Your task to perform on an android device: all mails in gmail Image 0: 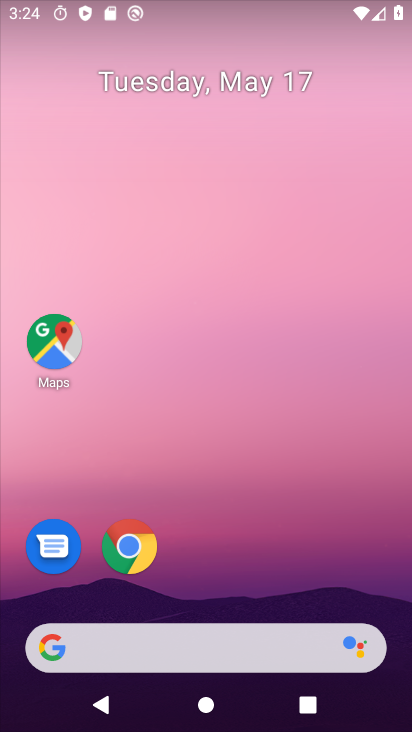
Step 0: drag from (294, 613) to (289, 247)
Your task to perform on an android device: all mails in gmail Image 1: 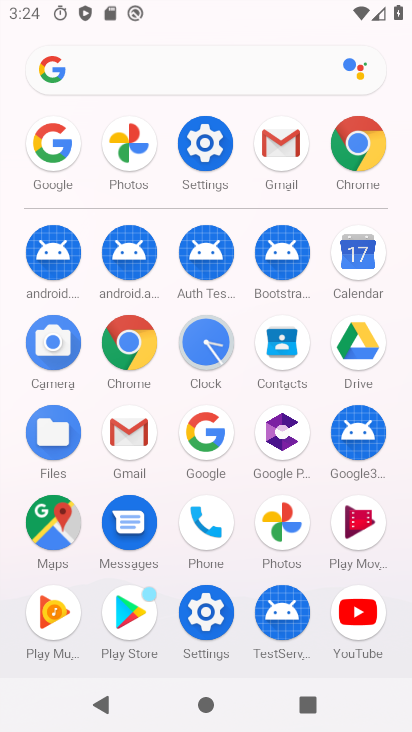
Step 1: click (116, 444)
Your task to perform on an android device: all mails in gmail Image 2: 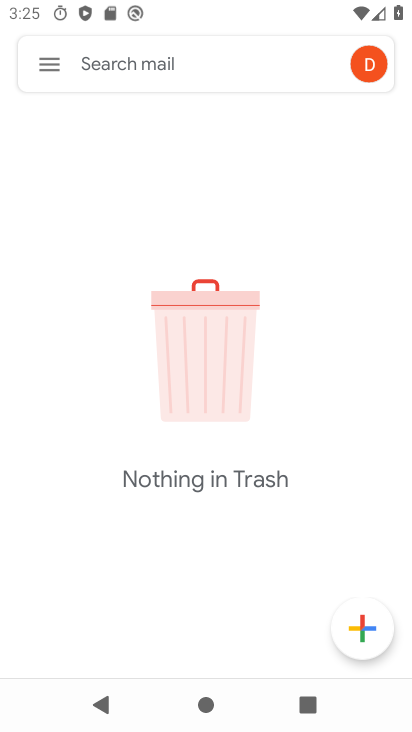
Step 2: click (54, 77)
Your task to perform on an android device: all mails in gmail Image 3: 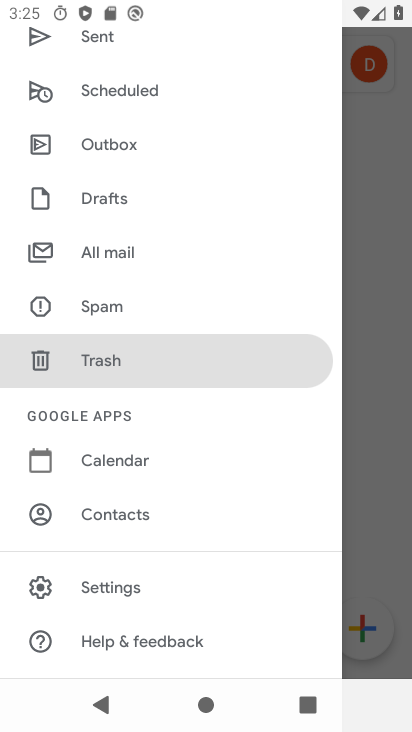
Step 3: click (130, 256)
Your task to perform on an android device: all mails in gmail Image 4: 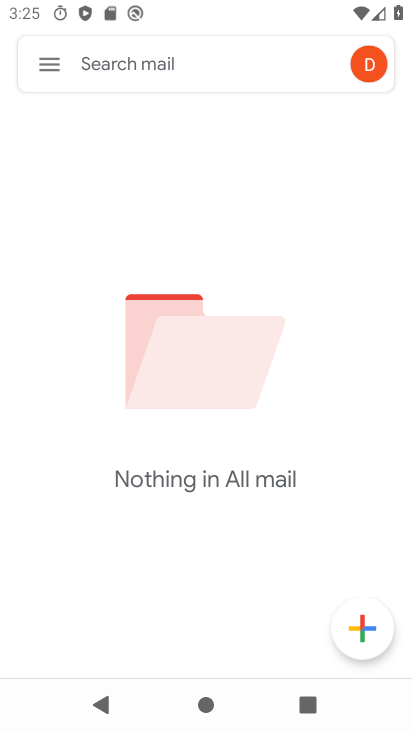
Step 4: task complete